Your task to perform on an android device: choose inbox layout in the gmail app Image 0: 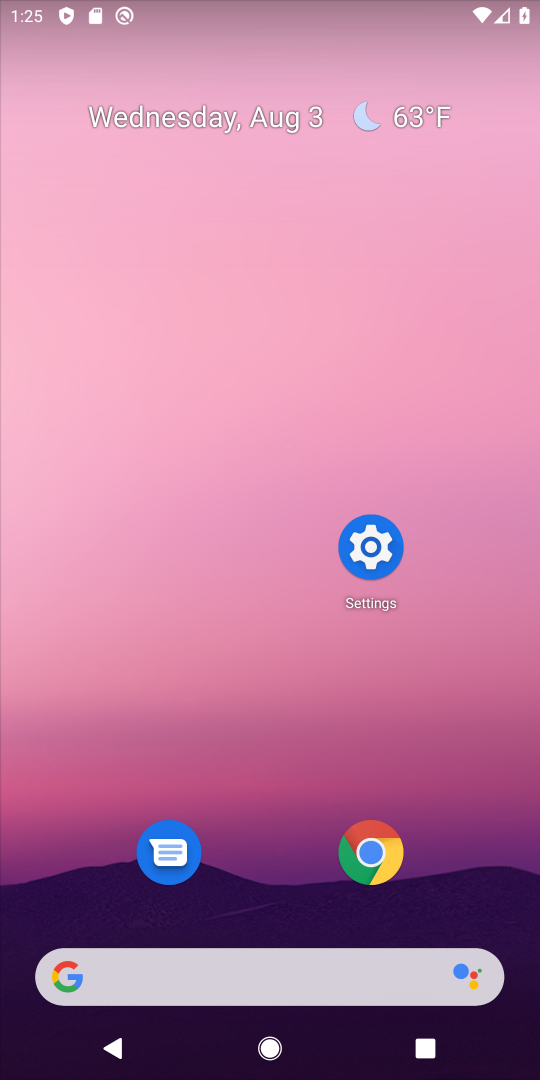
Step 0: press home button
Your task to perform on an android device: choose inbox layout in the gmail app Image 1: 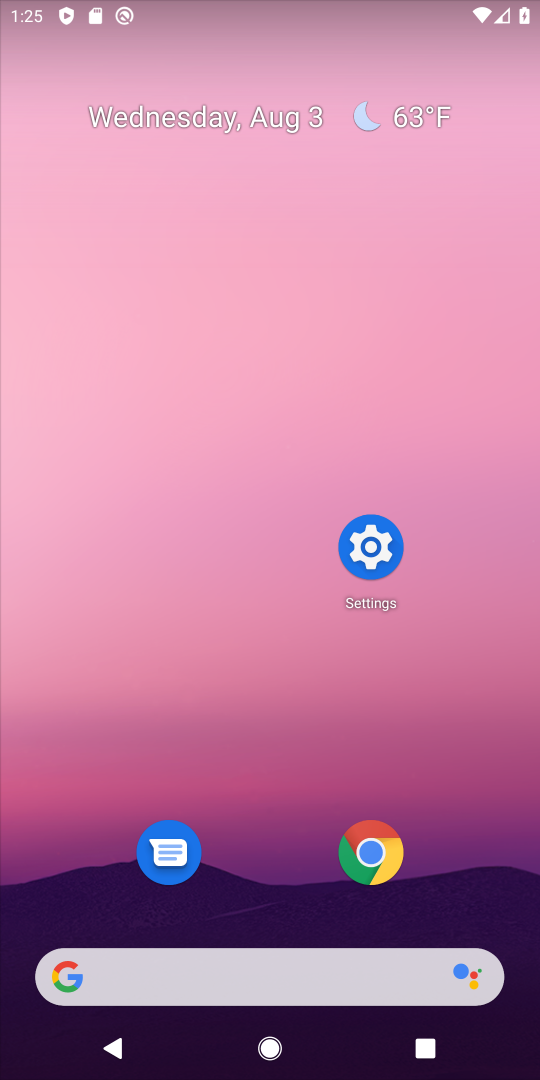
Step 1: drag from (265, 986) to (454, 219)
Your task to perform on an android device: choose inbox layout in the gmail app Image 2: 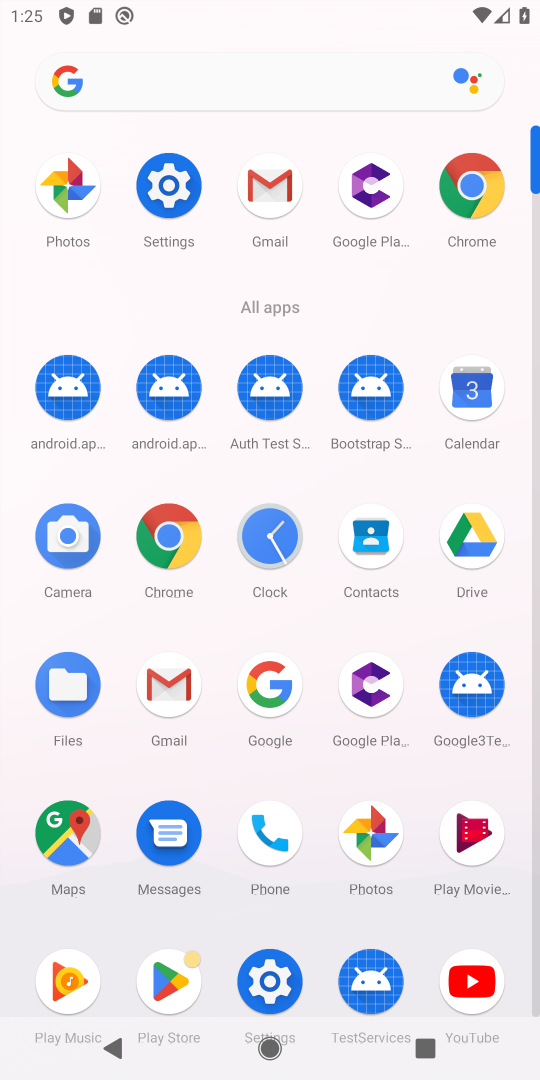
Step 2: click (267, 193)
Your task to perform on an android device: choose inbox layout in the gmail app Image 3: 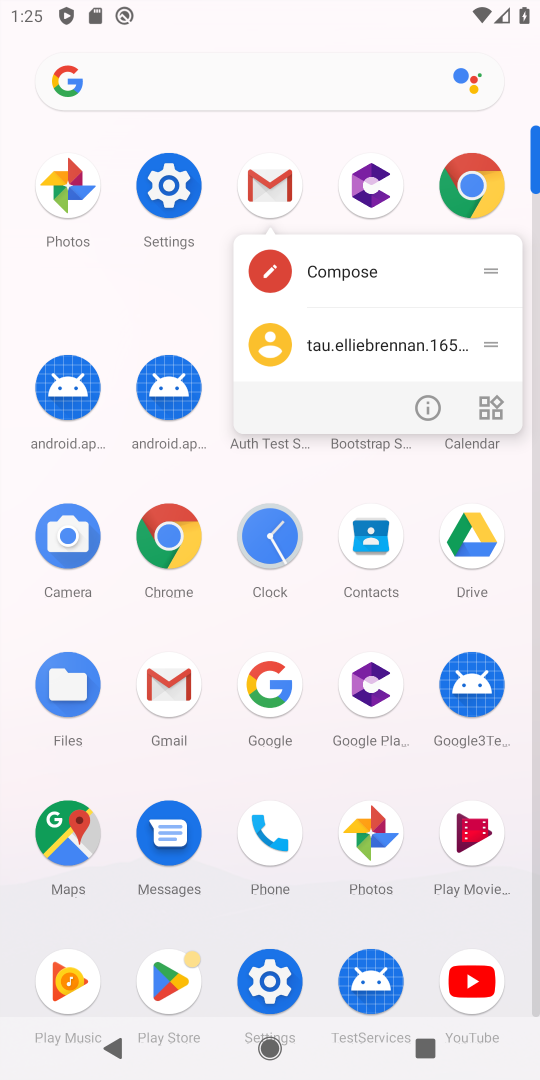
Step 3: click (265, 186)
Your task to perform on an android device: choose inbox layout in the gmail app Image 4: 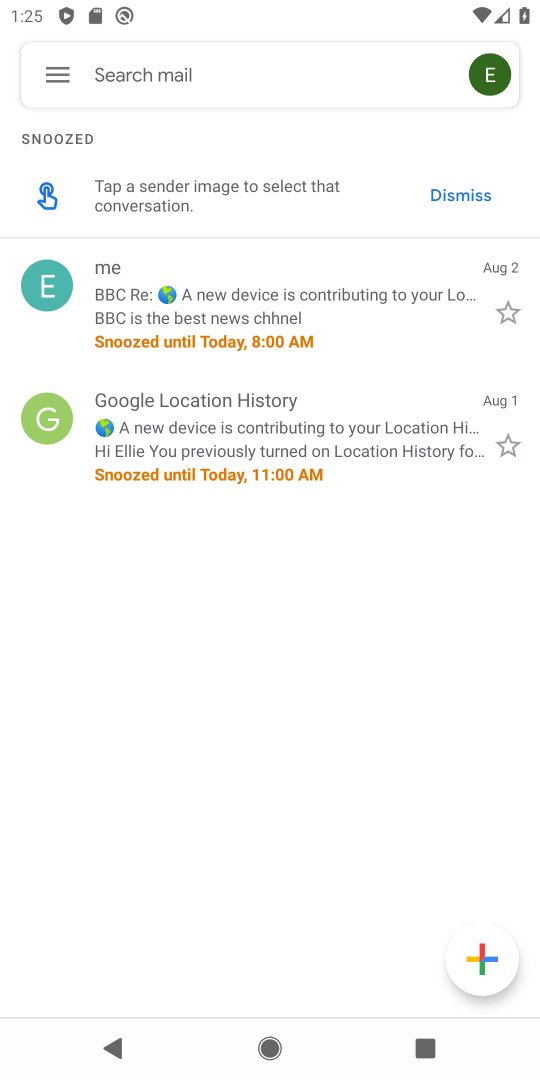
Step 4: click (51, 76)
Your task to perform on an android device: choose inbox layout in the gmail app Image 5: 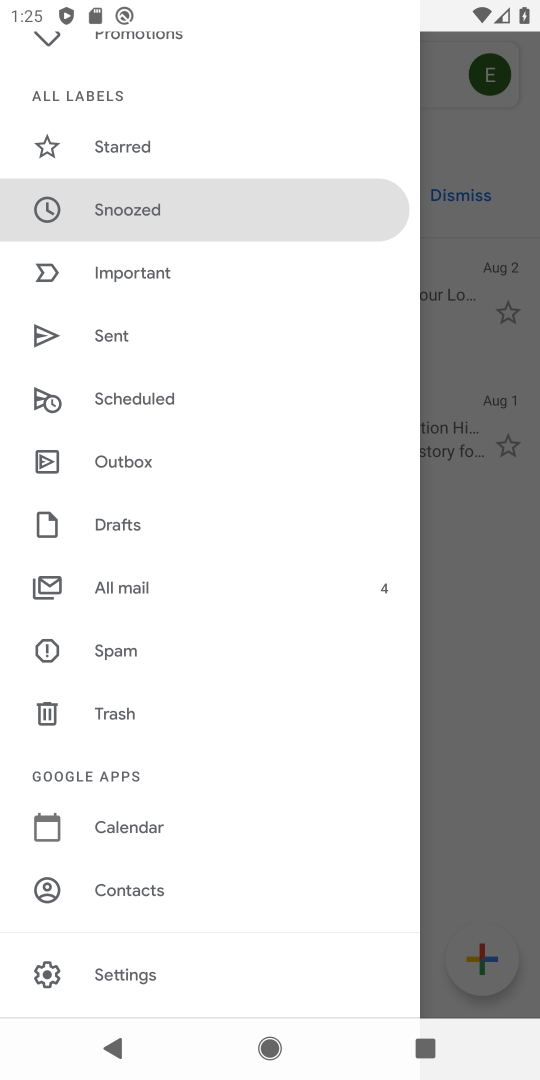
Step 5: drag from (265, 892) to (378, 94)
Your task to perform on an android device: choose inbox layout in the gmail app Image 6: 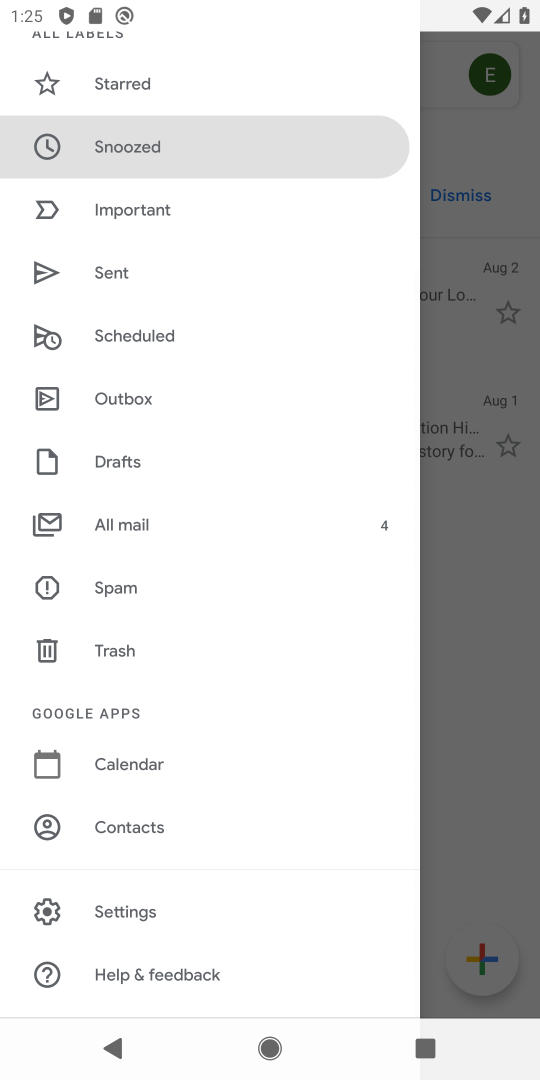
Step 6: click (126, 921)
Your task to perform on an android device: choose inbox layout in the gmail app Image 7: 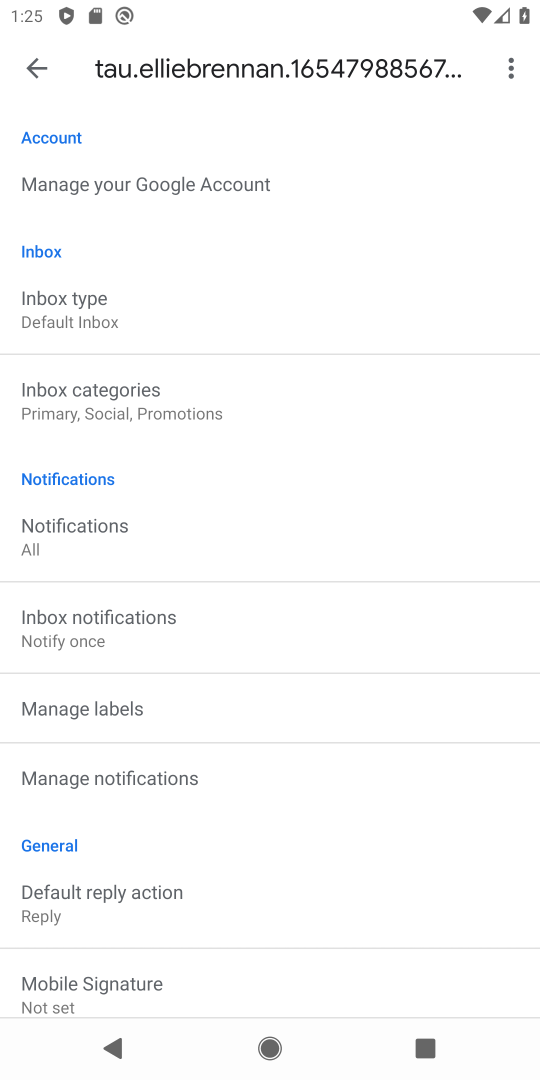
Step 7: click (100, 318)
Your task to perform on an android device: choose inbox layout in the gmail app Image 8: 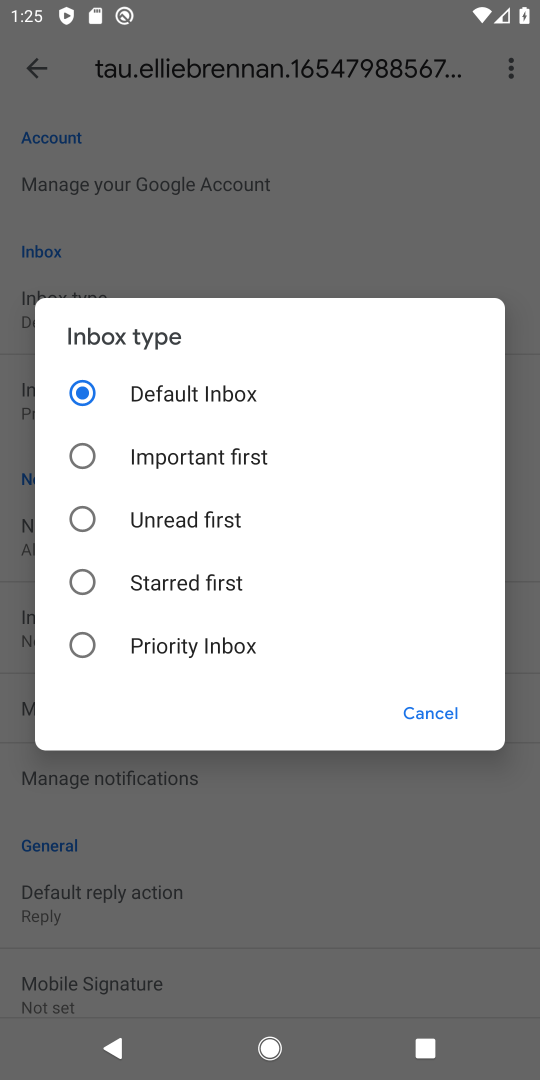
Step 8: click (73, 641)
Your task to perform on an android device: choose inbox layout in the gmail app Image 9: 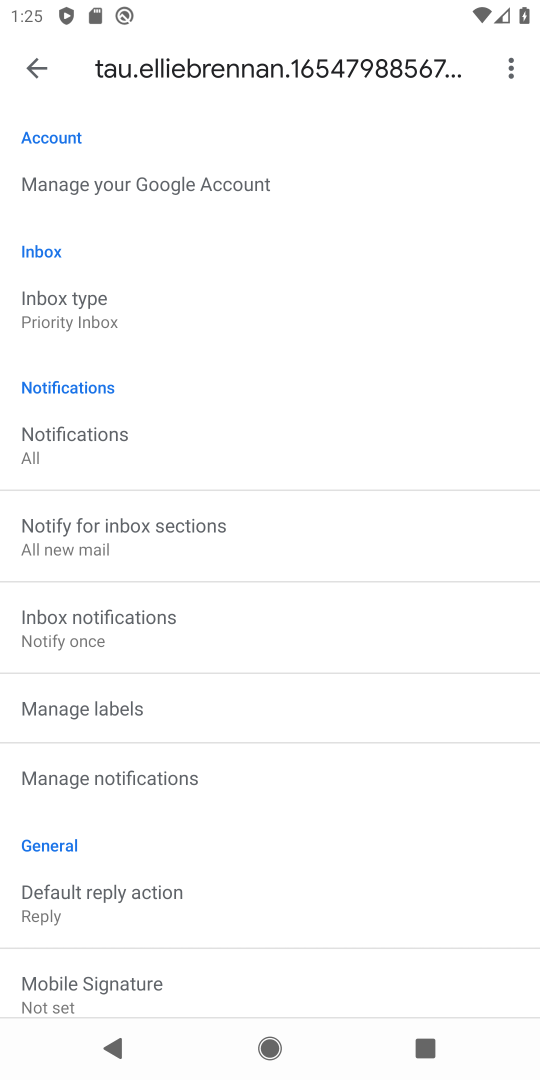
Step 9: task complete